Your task to perform on an android device: Go to battery settings Image 0: 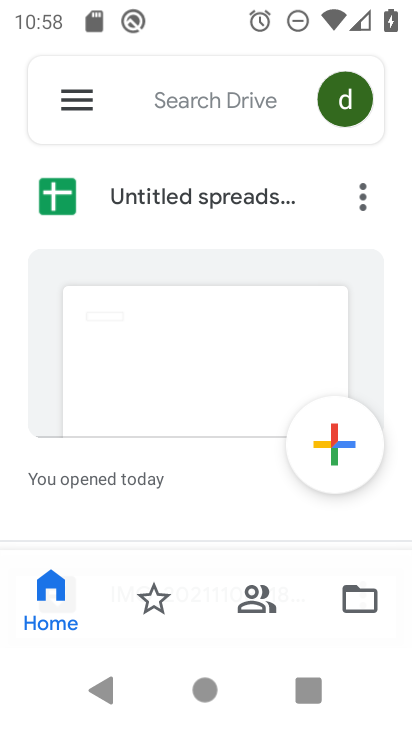
Step 0: drag from (185, 11) to (290, 544)
Your task to perform on an android device: Go to battery settings Image 1: 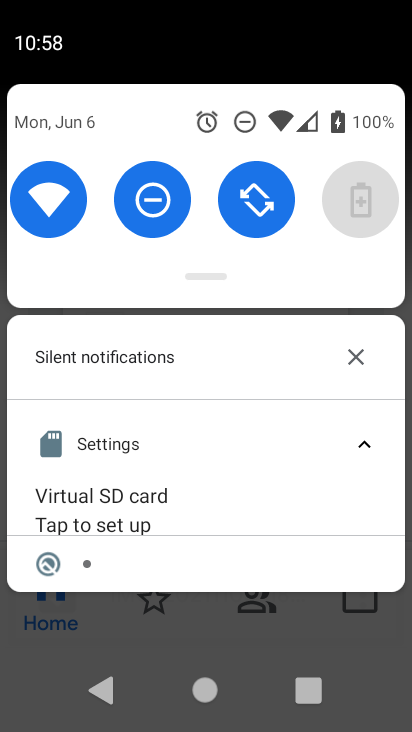
Step 1: click (368, 202)
Your task to perform on an android device: Go to battery settings Image 2: 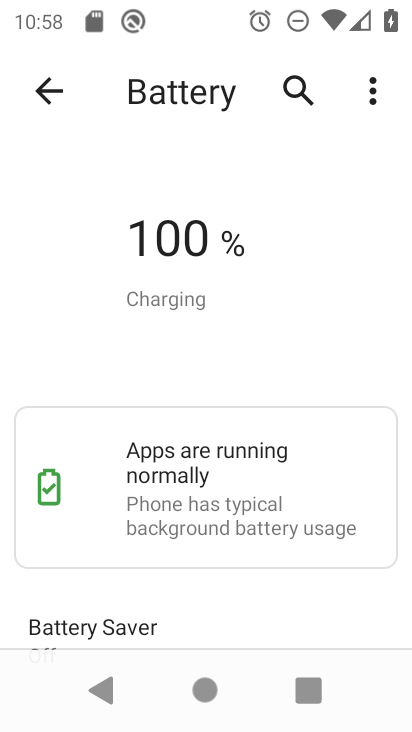
Step 2: task complete